Your task to perform on an android device: Open Chrome and go to the settings page Image 0: 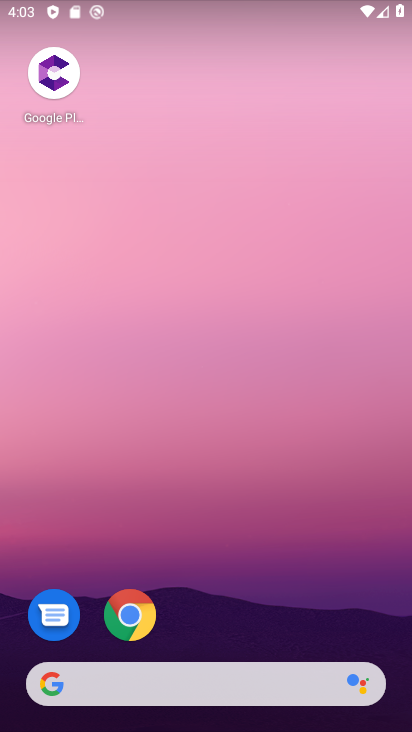
Step 0: drag from (257, 557) to (288, 69)
Your task to perform on an android device: Open Chrome and go to the settings page Image 1: 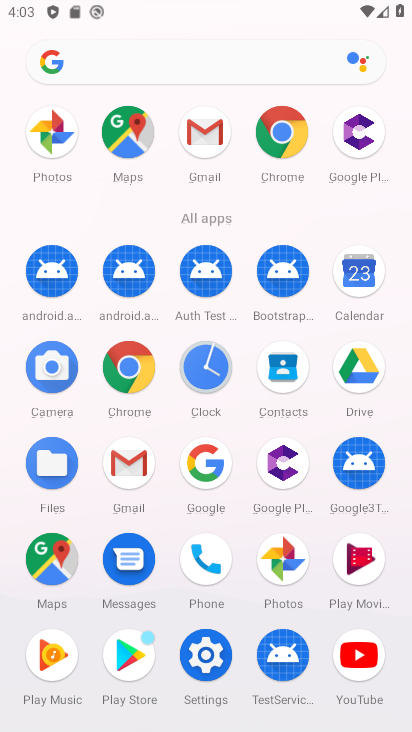
Step 1: click (280, 369)
Your task to perform on an android device: Open Chrome and go to the settings page Image 2: 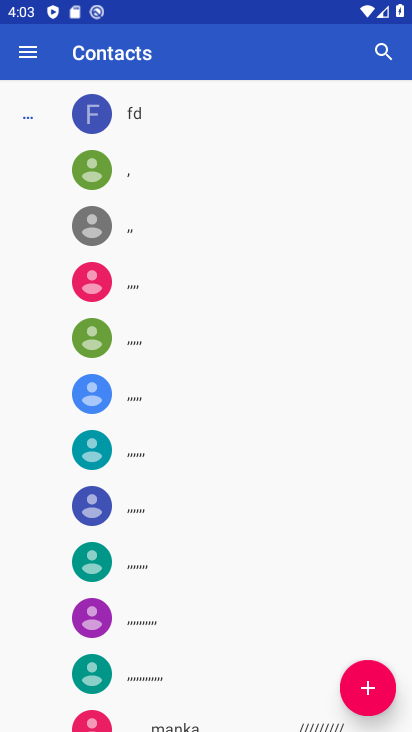
Step 2: click (364, 692)
Your task to perform on an android device: Open Chrome and go to the settings page Image 3: 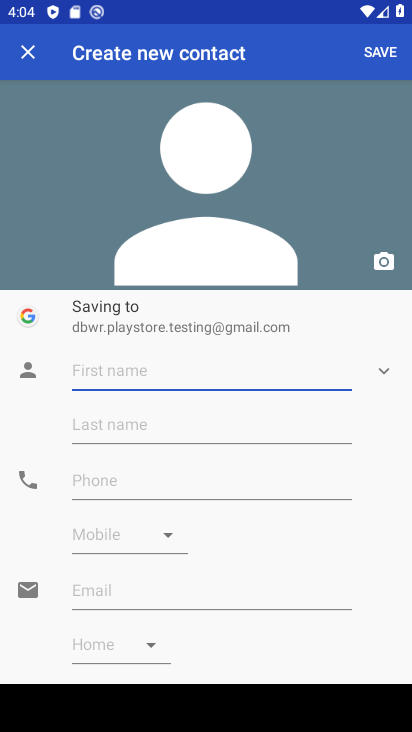
Step 3: type "Vivekanandaji"
Your task to perform on an android device: Open Chrome and go to the settings page Image 4: 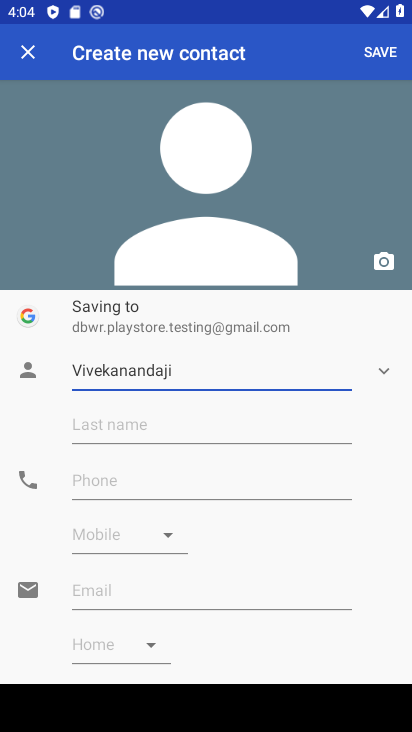
Step 4: click (248, 476)
Your task to perform on an android device: Open Chrome and go to the settings page Image 5: 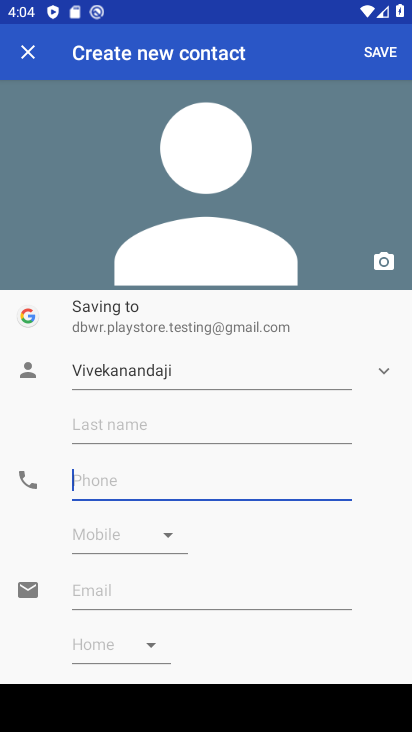
Step 5: type "9199977775533"
Your task to perform on an android device: Open Chrome and go to the settings page Image 6: 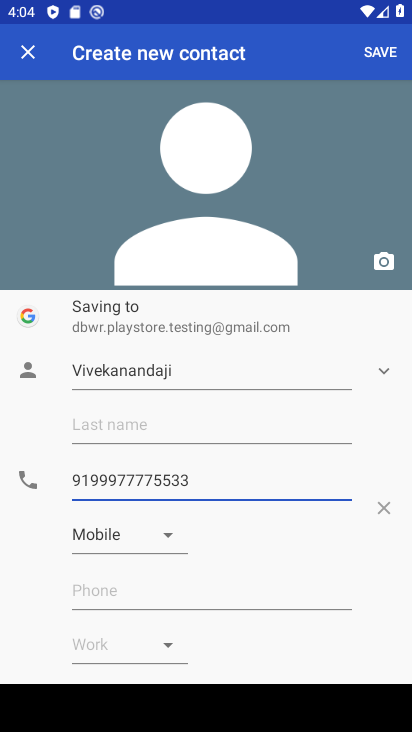
Step 6: click (382, 47)
Your task to perform on an android device: Open Chrome and go to the settings page Image 7: 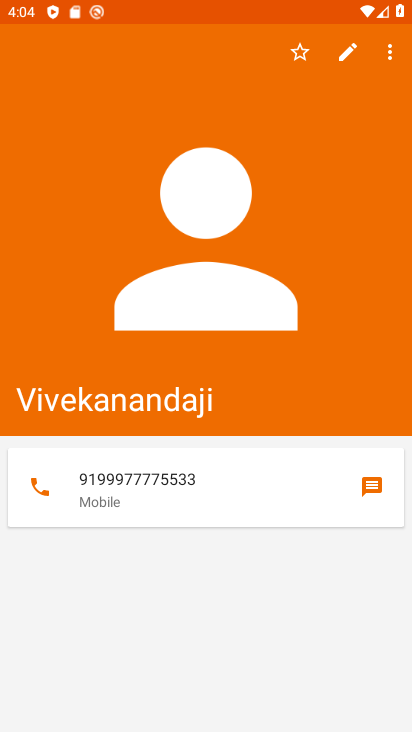
Step 7: task complete